Your task to perform on an android device: delete a single message in the gmail app Image 0: 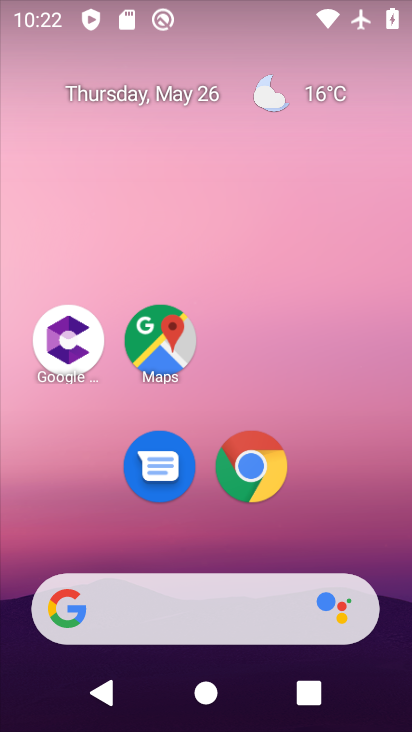
Step 0: drag from (320, 507) to (231, 127)
Your task to perform on an android device: delete a single message in the gmail app Image 1: 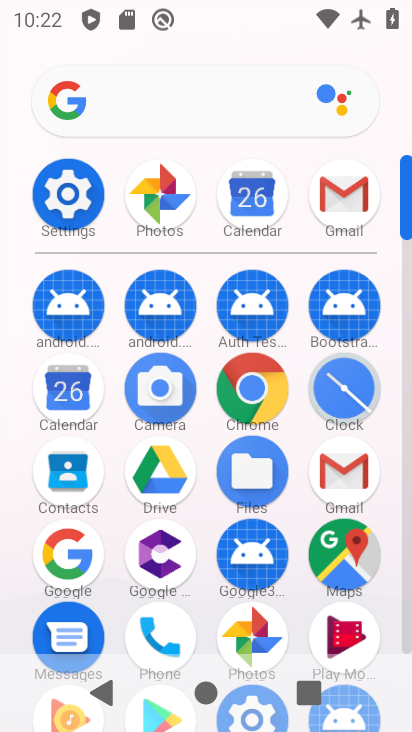
Step 1: click (337, 205)
Your task to perform on an android device: delete a single message in the gmail app Image 2: 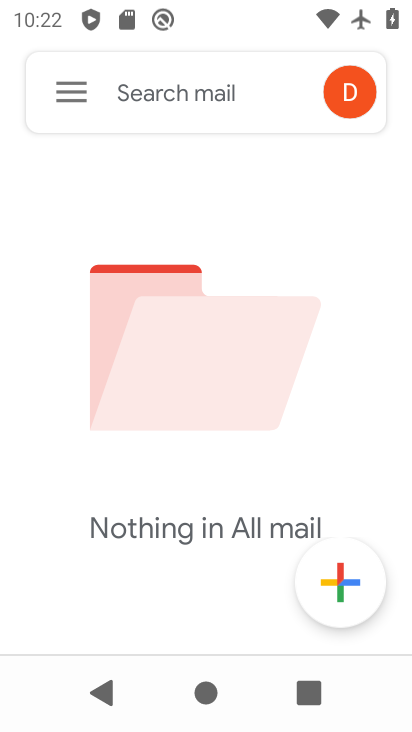
Step 2: task complete